Your task to perform on an android device: turn pop-ups on in chrome Image 0: 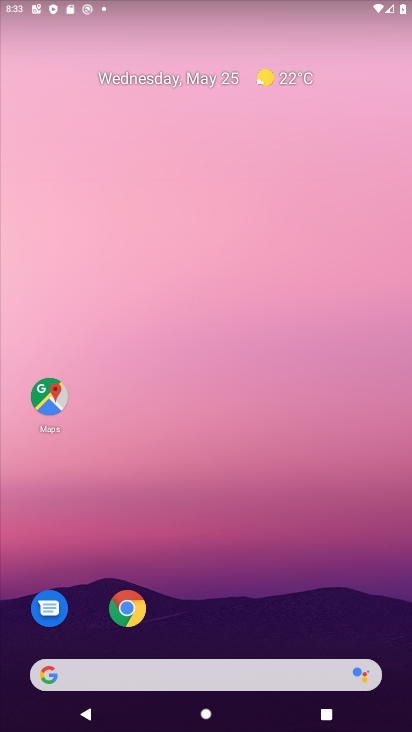
Step 0: click (126, 608)
Your task to perform on an android device: turn pop-ups on in chrome Image 1: 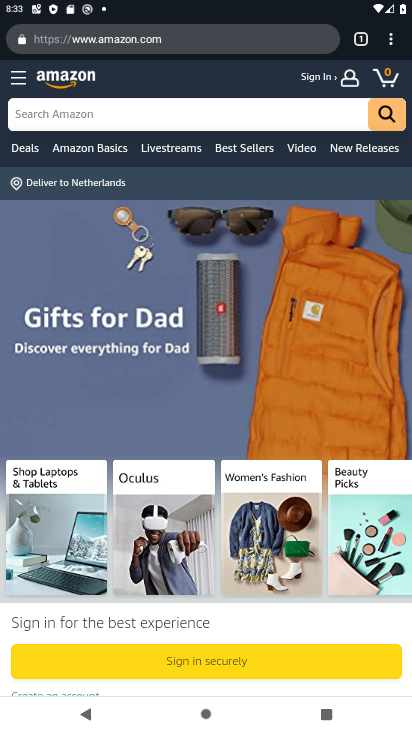
Step 1: click (391, 41)
Your task to perform on an android device: turn pop-ups on in chrome Image 2: 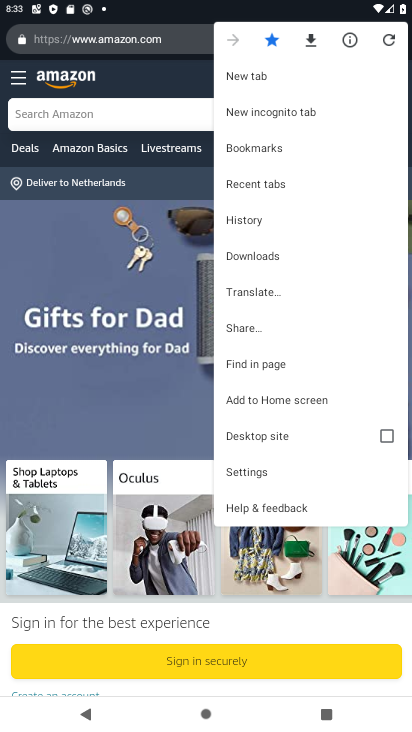
Step 2: click (246, 468)
Your task to perform on an android device: turn pop-ups on in chrome Image 3: 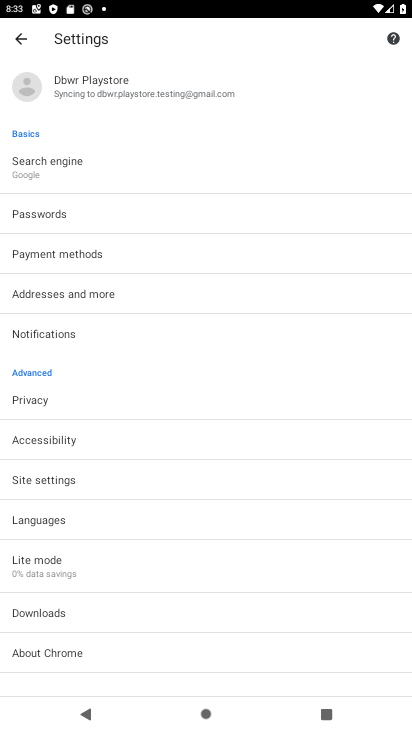
Step 3: click (36, 481)
Your task to perform on an android device: turn pop-ups on in chrome Image 4: 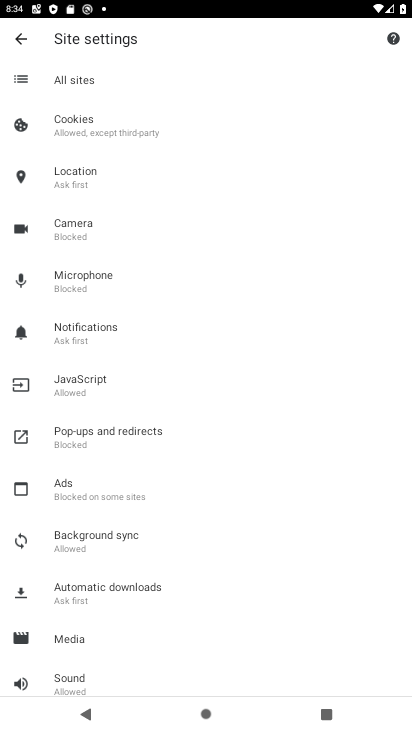
Step 4: click (108, 429)
Your task to perform on an android device: turn pop-ups on in chrome Image 5: 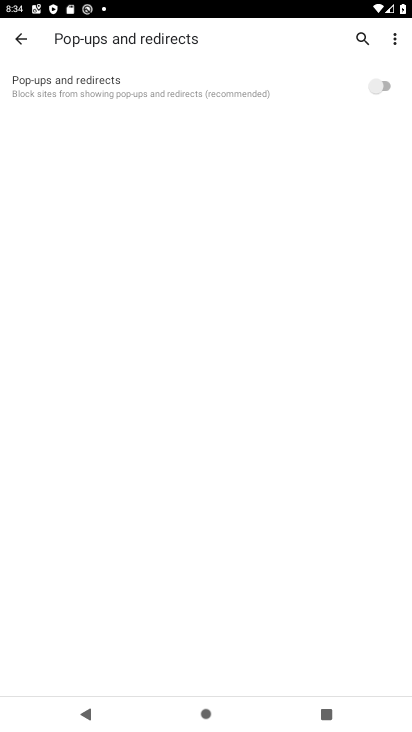
Step 5: click (388, 83)
Your task to perform on an android device: turn pop-ups on in chrome Image 6: 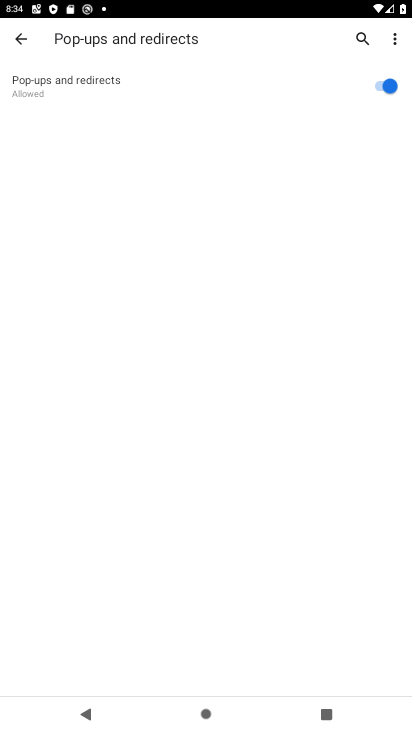
Step 6: task complete